Your task to perform on an android device: toggle sleep mode Image 0: 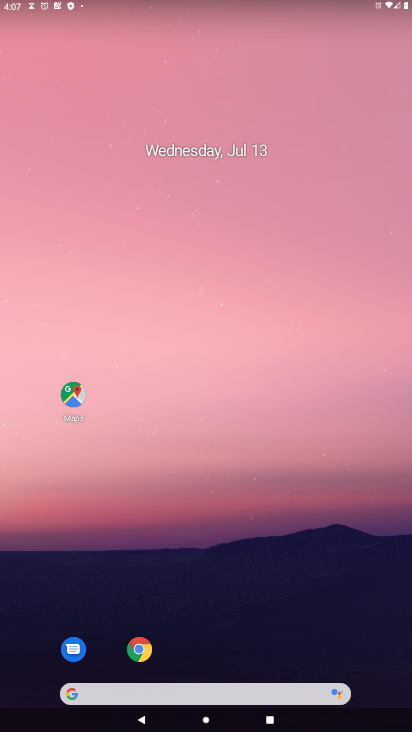
Step 0: drag from (224, 728) to (206, 23)
Your task to perform on an android device: toggle sleep mode Image 1: 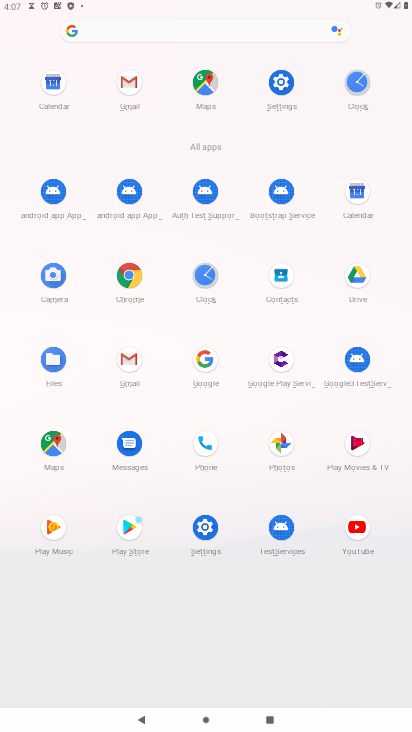
Step 1: click (280, 87)
Your task to perform on an android device: toggle sleep mode Image 2: 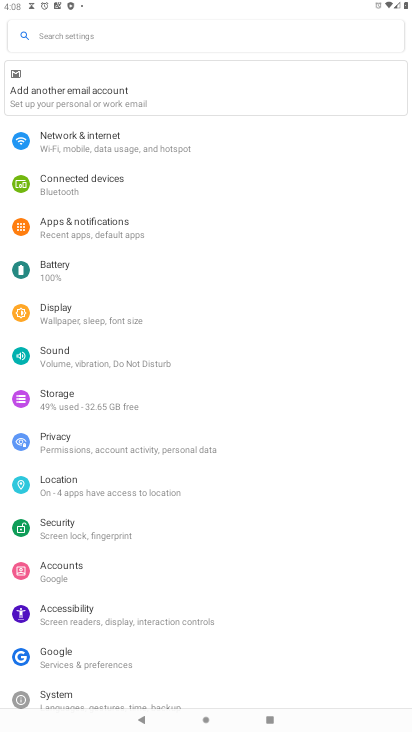
Step 2: click (111, 321)
Your task to perform on an android device: toggle sleep mode Image 3: 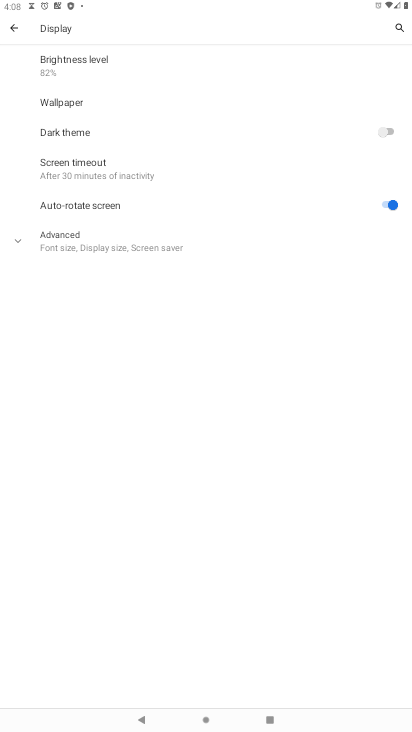
Step 3: task complete